Your task to perform on an android device: Search for sushi restaurants on Maps Image 0: 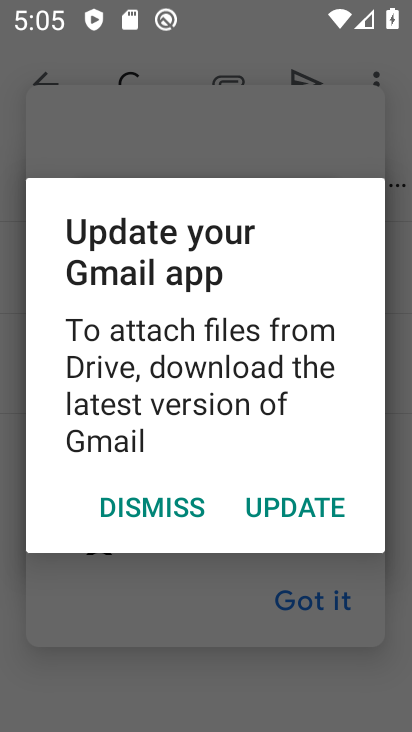
Step 0: press home button
Your task to perform on an android device: Search for sushi restaurants on Maps Image 1: 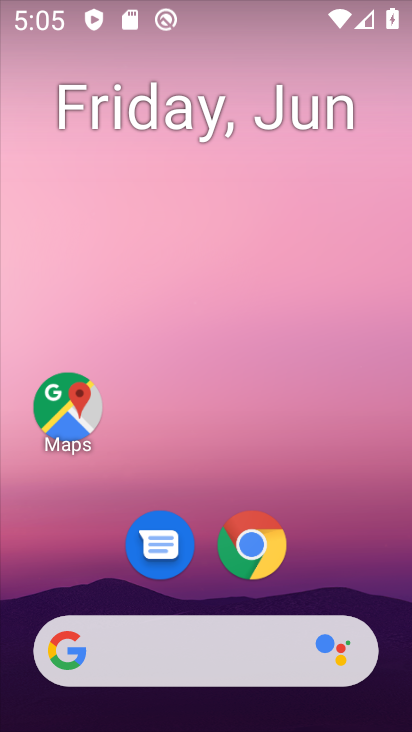
Step 1: drag from (169, 609) to (171, 239)
Your task to perform on an android device: Search for sushi restaurants on Maps Image 2: 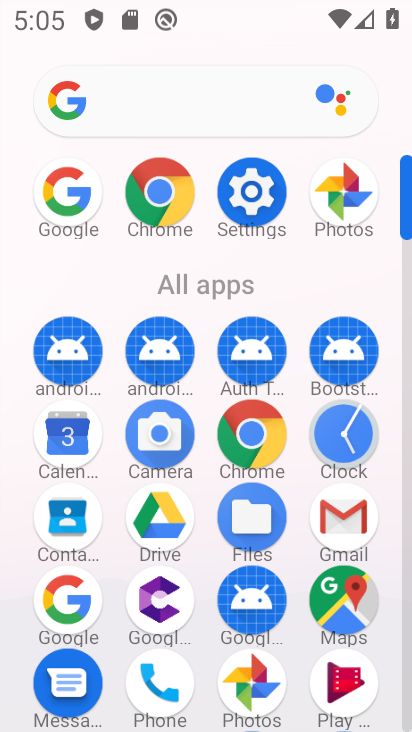
Step 2: click (367, 584)
Your task to perform on an android device: Search for sushi restaurants on Maps Image 3: 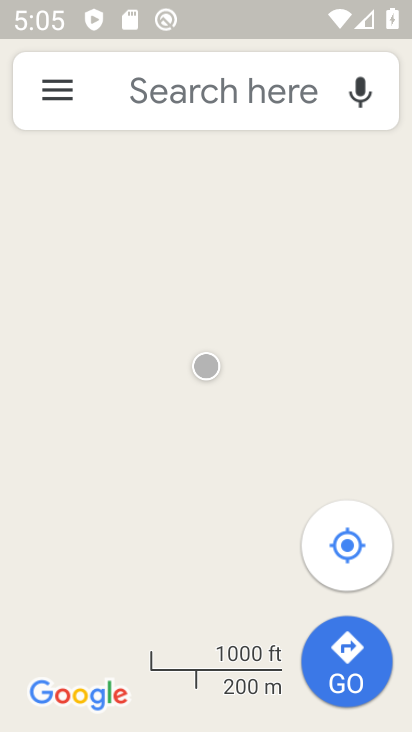
Step 3: click (45, 94)
Your task to perform on an android device: Search for sushi restaurants on Maps Image 4: 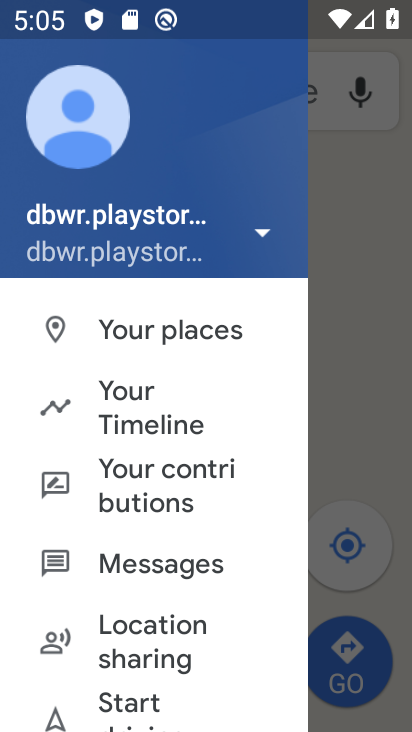
Step 4: click (343, 382)
Your task to perform on an android device: Search for sushi restaurants on Maps Image 5: 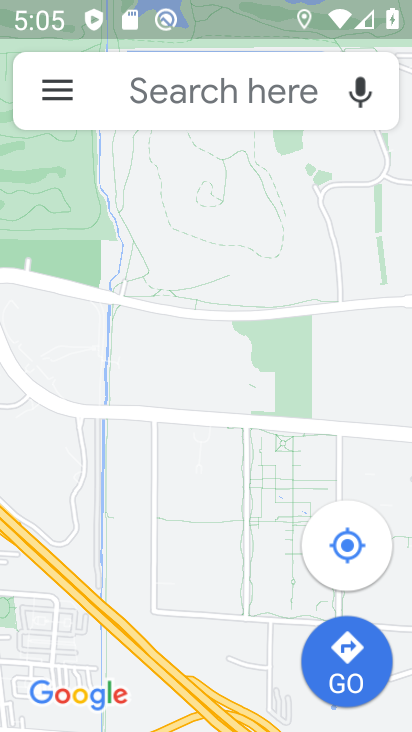
Step 5: click (202, 99)
Your task to perform on an android device: Search for sushi restaurants on Maps Image 6: 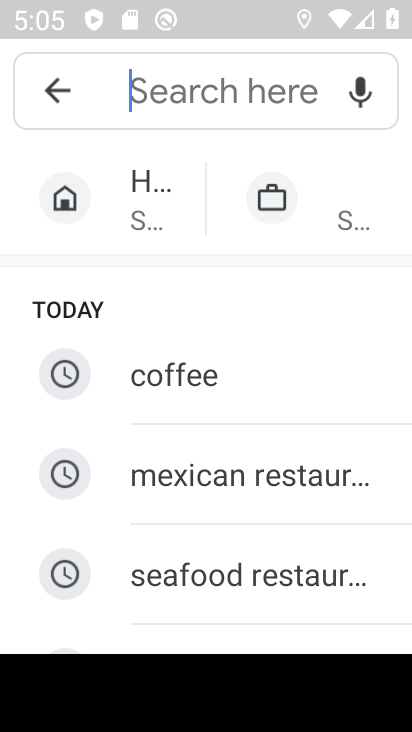
Step 6: drag from (260, 619) to (260, 259)
Your task to perform on an android device: Search for sushi restaurants on Maps Image 7: 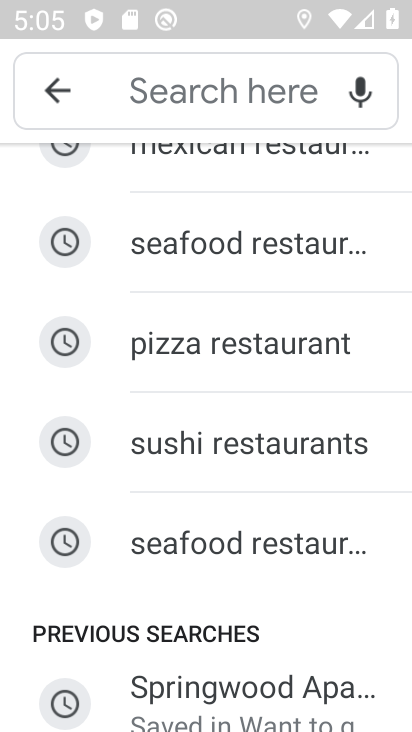
Step 7: click (194, 454)
Your task to perform on an android device: Search for sushi restaurants on Maps Image 8: 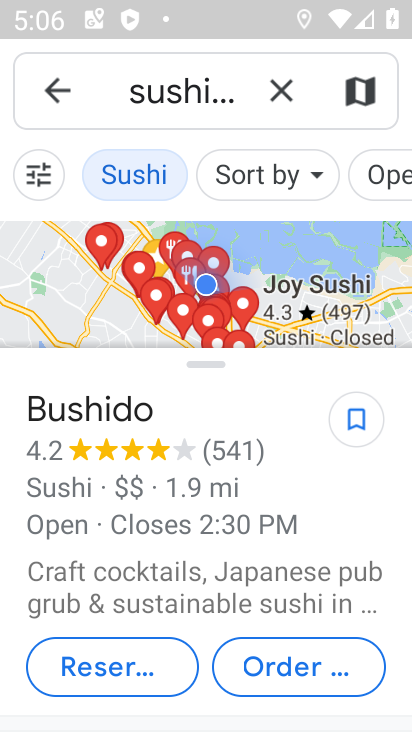
Step 8: task complete